Your task to perform on an android device: What is the recent news? Image 0: 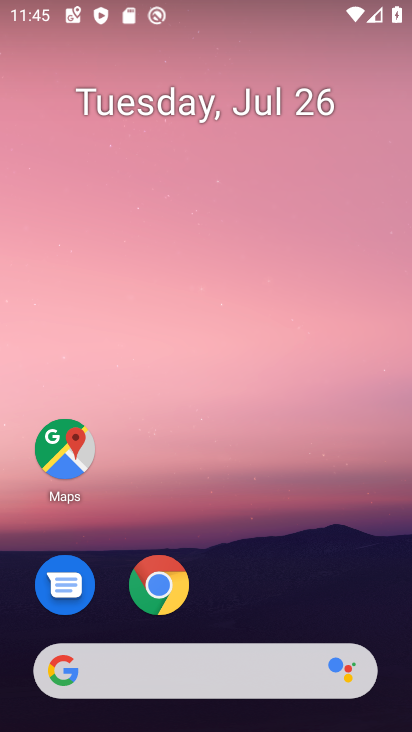
Step 0: click (214, 683)
Your task to perform on an android device: What is the recent news? Image 1: 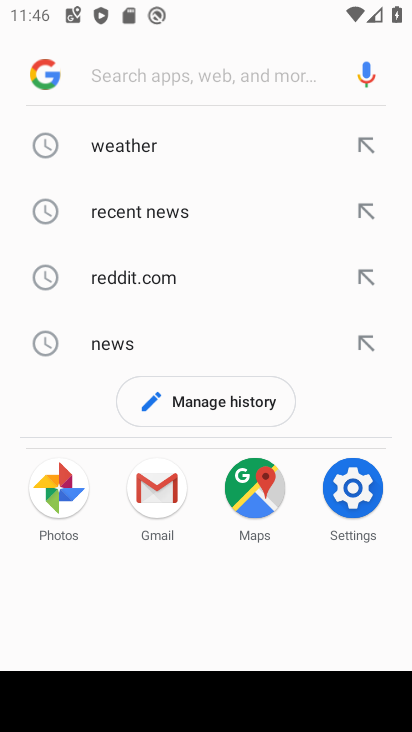
Step 1: click (149, 215)
Your task to perform on an android device: What is the recent news? Image 2: 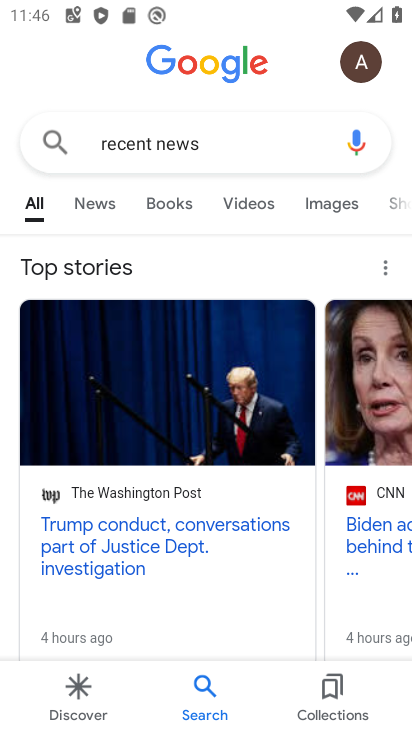
Step 2: task complete